Your task to perform on an android device: Go to Android settings Image 0: 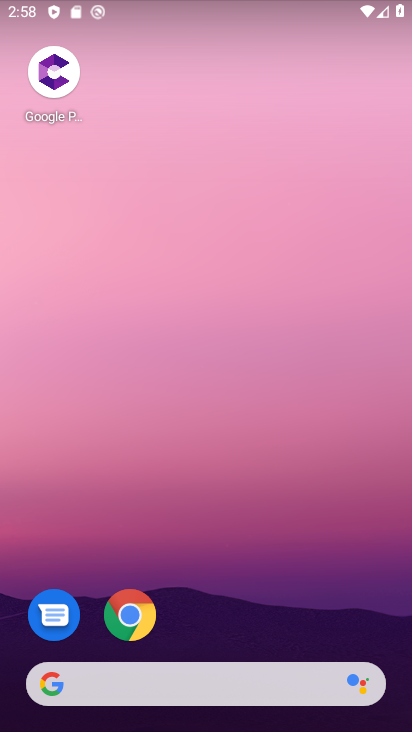
Step 0: drag from (220, 638) to (192, 369)
Your task to perform on an android device: Go to Android settings Image 1: 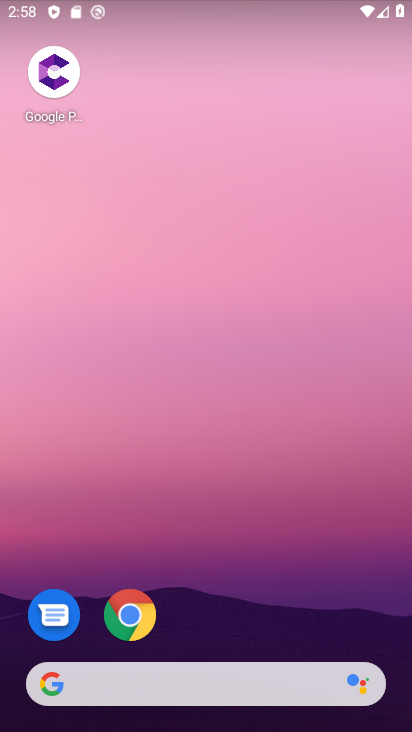
Step 1: drag from (223, 634) to (239, 244)
Your task to perform on an android device: Go to Android settings Image 2: 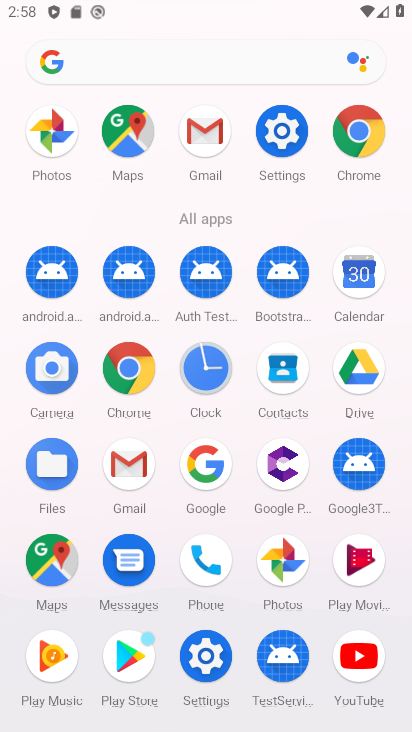
Step 2: click (213, 656)
Your task to perform on an android device: Go to Android settings Image 3: 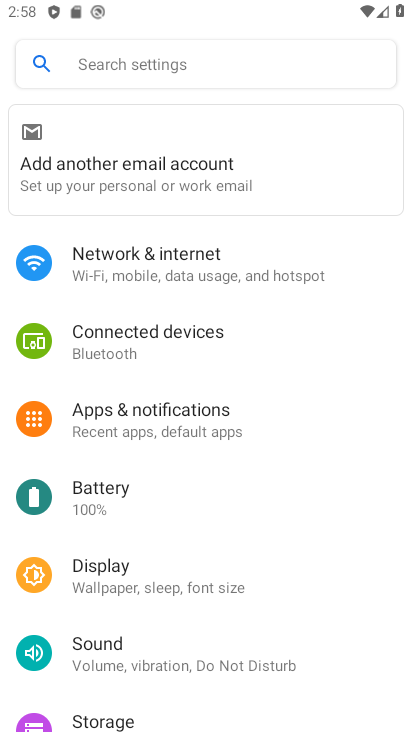
Step 3: task complete